Your task to perform on an android device: Open Google Image 0: 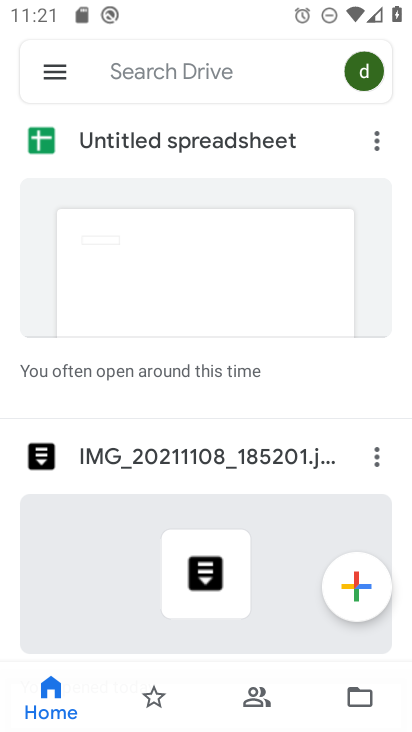
Step 0: press home button
Your task to perform on an android device: Open Google Image 1: 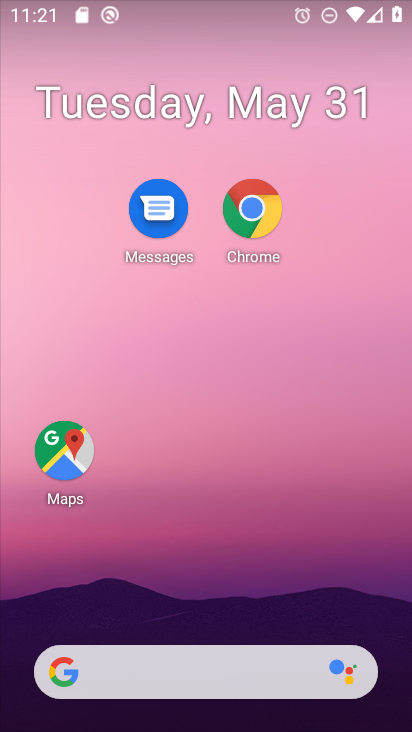
Step 1: drag from (211, 616) to (231, 69)
Your task to perform on an android device: Open Google Image 2: 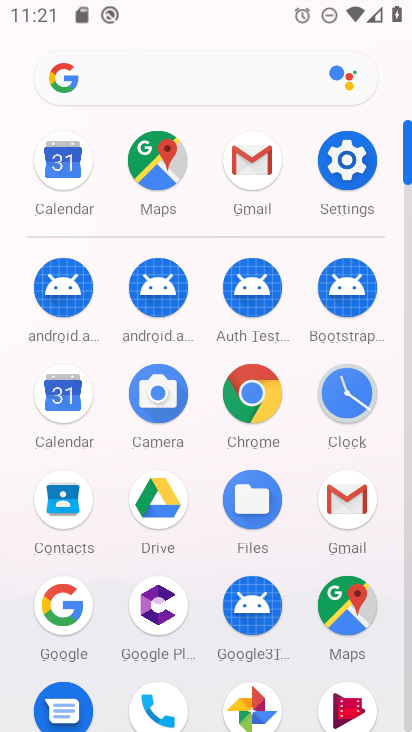
Step 2: click (61, 597)
Your task to perform on an android device: Open Google Image 3: 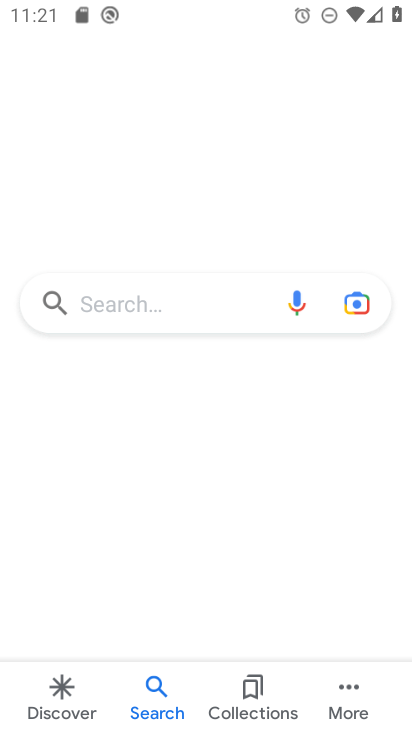
Step 3: click (61, 688)
Your task to perform on an android device: Open Google Image 4: 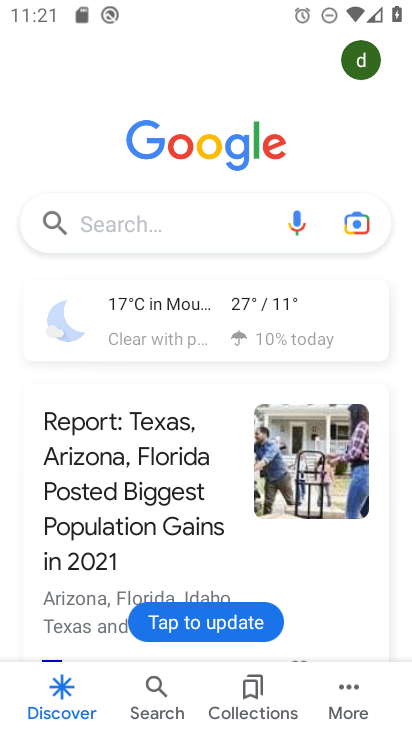
Step 4: task complete